Your task to perform on an android device: Go to wifi settings Image 0: 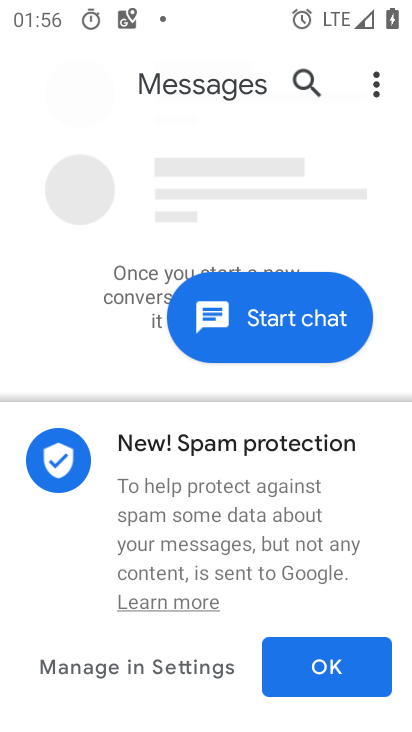
Step 0: press home button
Your task to perform on an android device: Go to wifi settings Image 1: 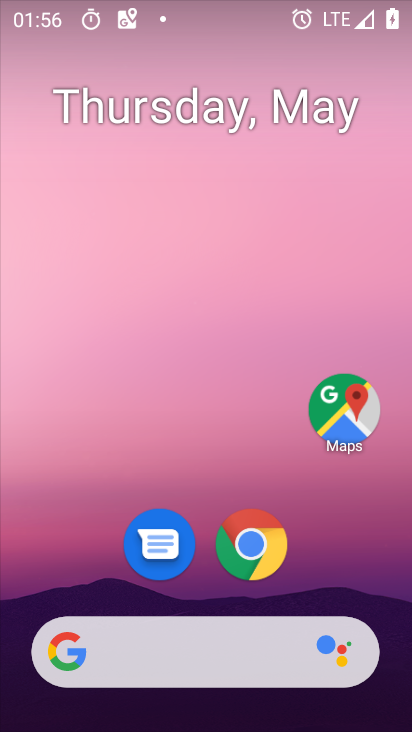
Step 1: drag from (357, 555) to (353, 182)
Your task to perform on an android device: Go to wifi settings Image 2: 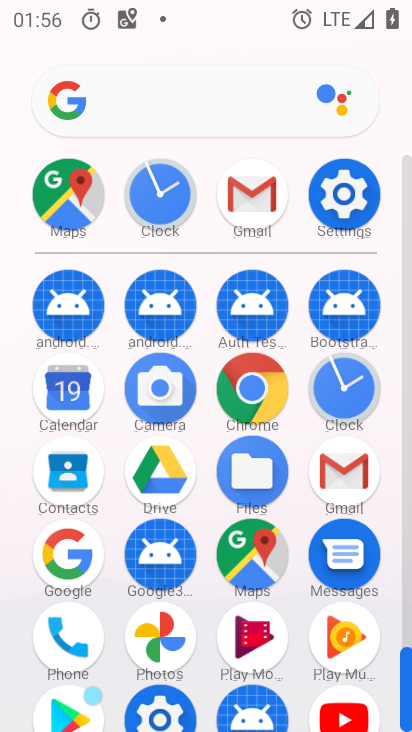
Step 2: click (368, 197)
Your task to perform on an android device: Go to wifi settings Image 3: 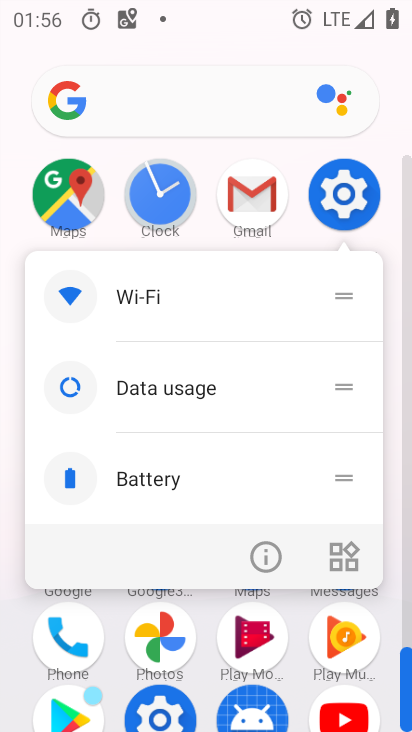
Step 3: click (348, 186)
Your task to perform on an android device: Go to wifi settings Image 4: 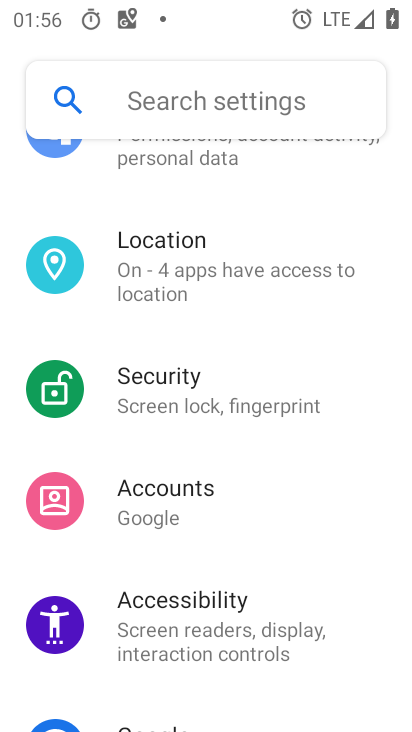
Step 4: drag from (342, 529) to (333, 326)
Your task to perform on an android device: Go to wifi settings Image 5: 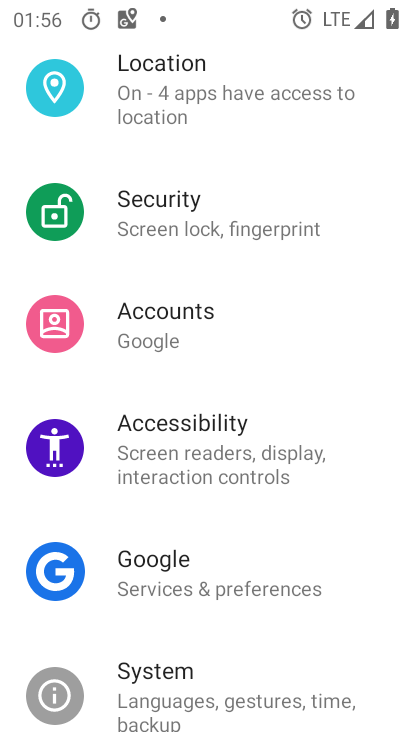
Step 5: drag from (346, 572) to (358, 352)
Your task to perform on an android device: Go to wifi settings Image 6: 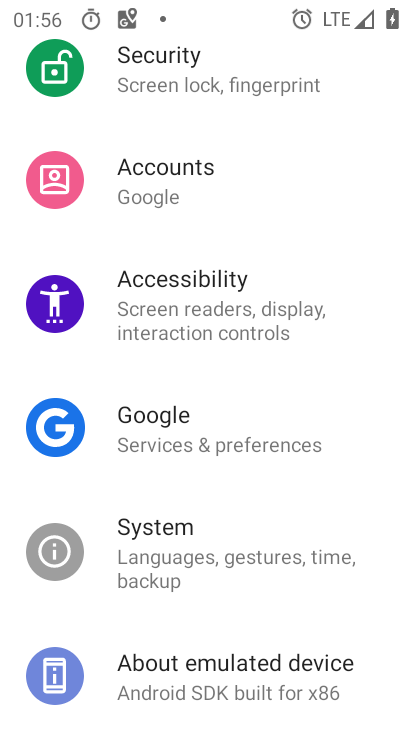
Step 6: drag from (361, 592) to (358, 344)
Your task to perform on an android device: Go to wifi settings Image 7: 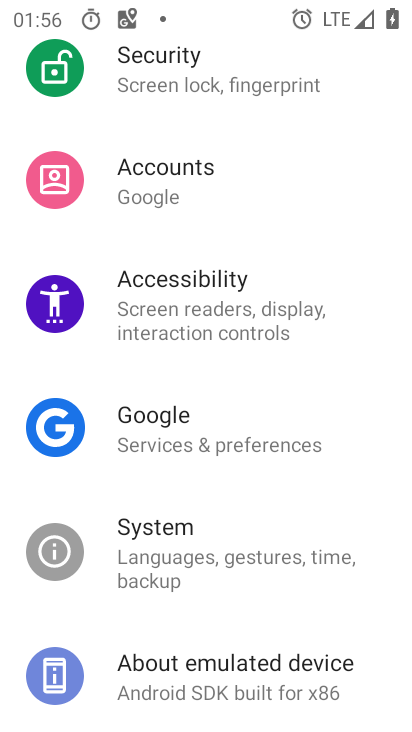
Step 7: drag from (343, 253) to (331, 442)
Your task to perform on an android device: Go to wifi settings Image 8: 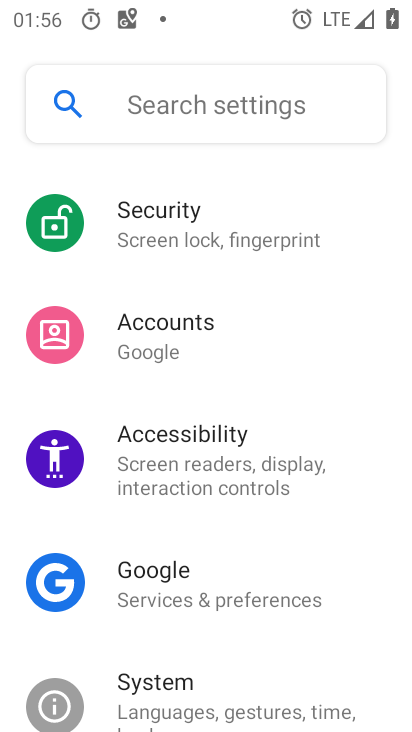
Step 8: drag from (368, 218) to (352, 397)
Your task to perform on an android device: Go to wifi settings Image 9: 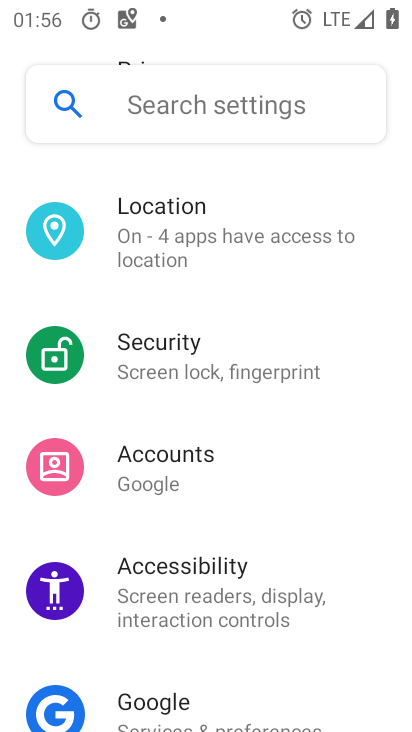
Step 9: drag from (355, 204) to (345, 359)
Your task to perform on an android device: Go to wifi settings Image 10: 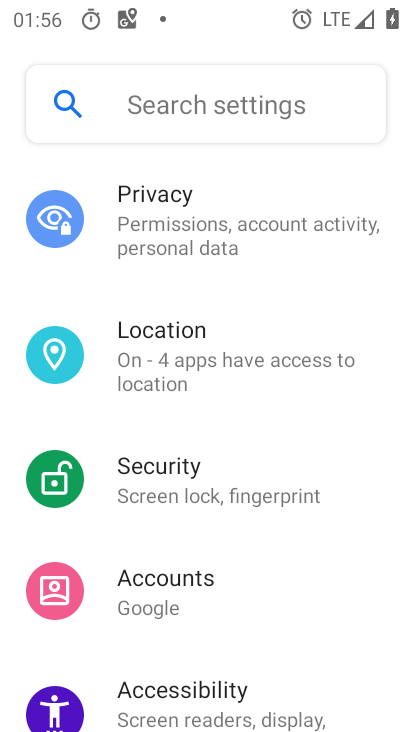
Step 10: drag from (343, 182) to (338, 341)
Your task to perform on an android device: Go to wifi settings Image 11: 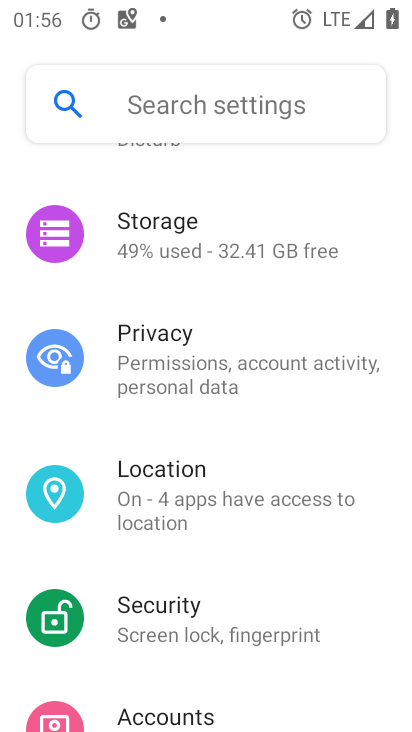
Step 11: drag from (349, 186) to (348, 323)
Your task to perform on an android device: Go to wifi settings Image 12: 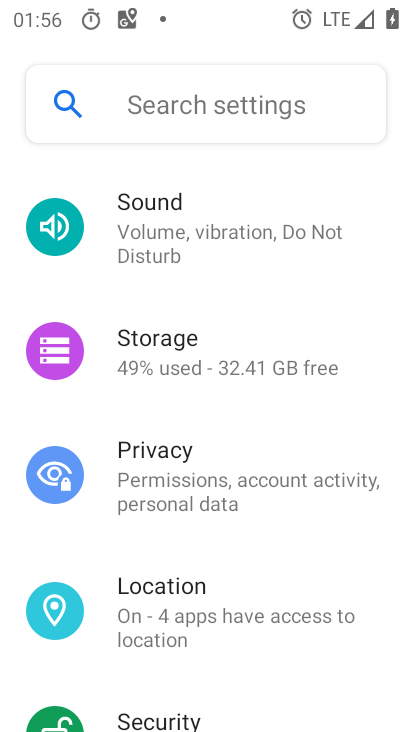
Step 12: drag from (351, 192) to (332, 310)
Your task to perform on an android device: Go to wifi settings Image 13: 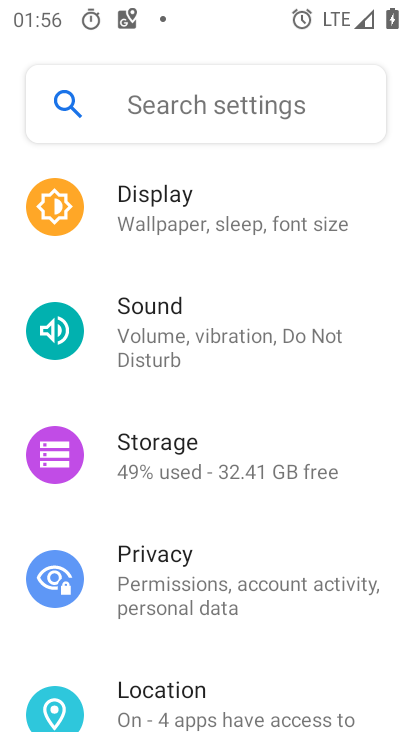
Step 13: drag from (322, 198) to (308, 311)
Your task to perform on an android device: Go to wifi settings Image 14: 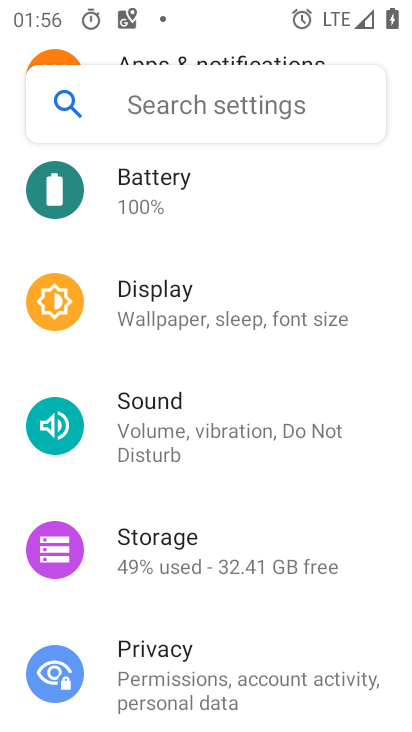
Step 14: drag from (334, 189) to (334, 300)
Your task to perform on an android device: Go to wifi settings Image 15: 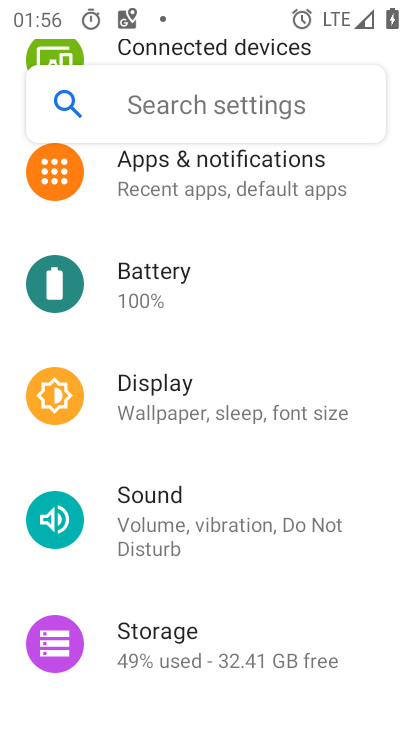
Step 15: drag from (334, 188) to (315, 312)
Your task to perform on an android device: Go to wifi settings Image 16: 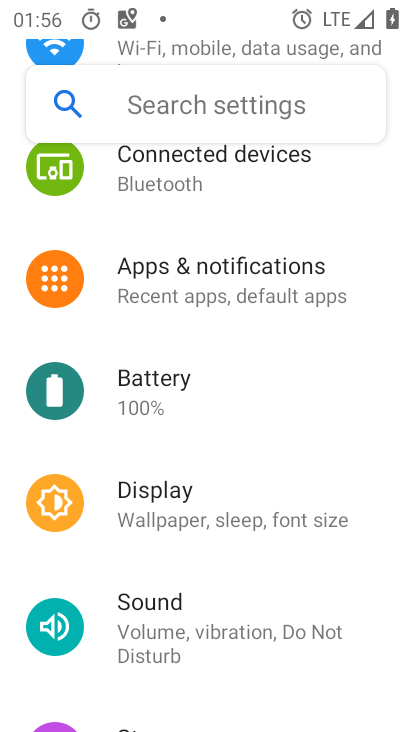
Step 16: drag from (297, 235) to (284, 340)
Your task to perform on an android device: Go to wifi settings Image 17: 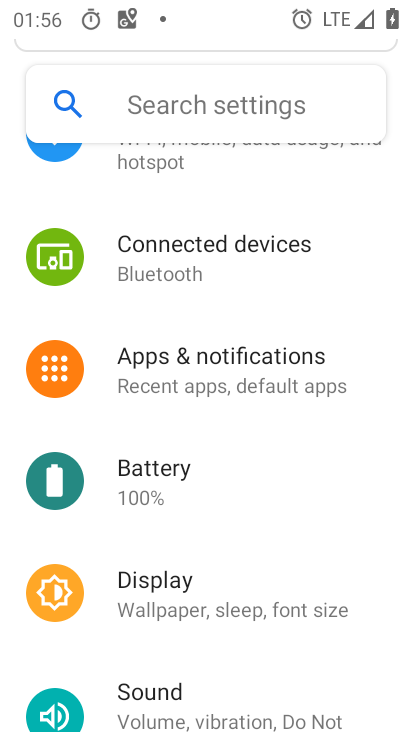
Step 17: drag from (320, 178) to (321, 289)
Your task to perform on an android device: Go to wifi settings Image 18: 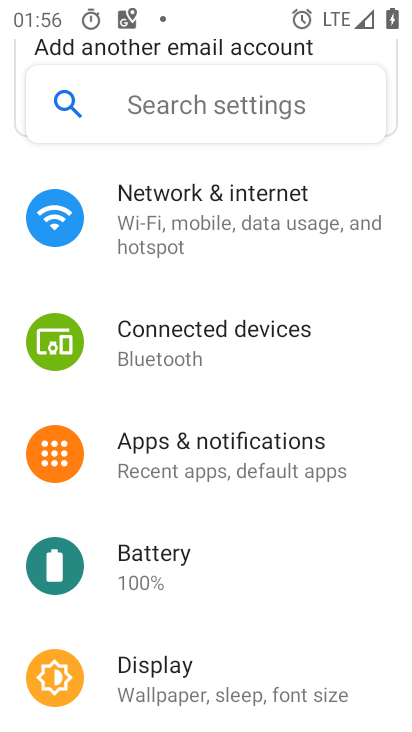
Step 18: click (233, 223)
Your task to perform on an android device: Go to wifi settings Image 19: 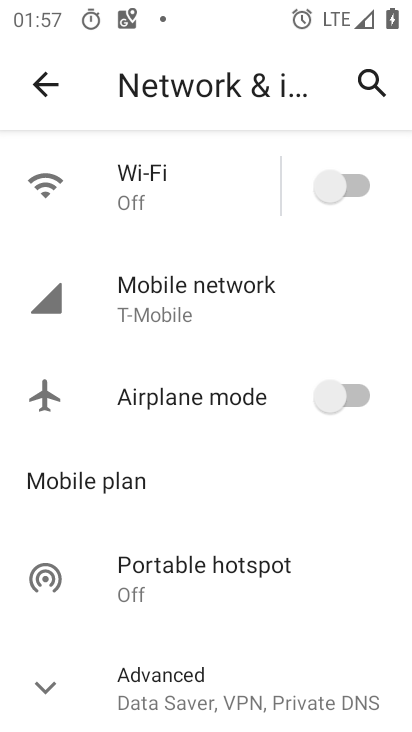
Step 19: click (151, 179)
Your task to perform on an android device: Go to wifi settings Image 20: 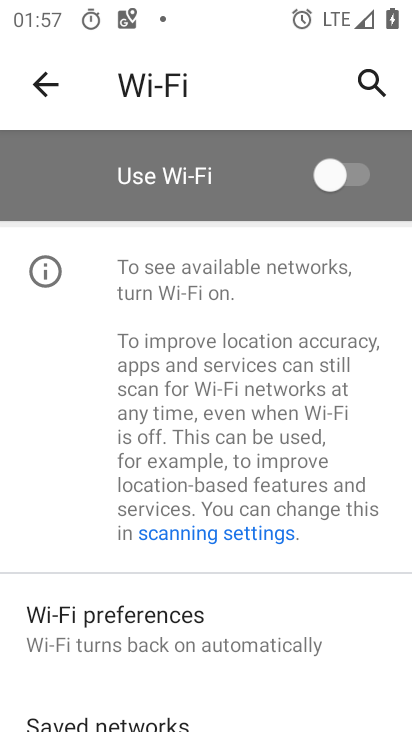
Step 20: task complete